Your task to perform on an android device: Go to calendar. Show me events next week Image 0: 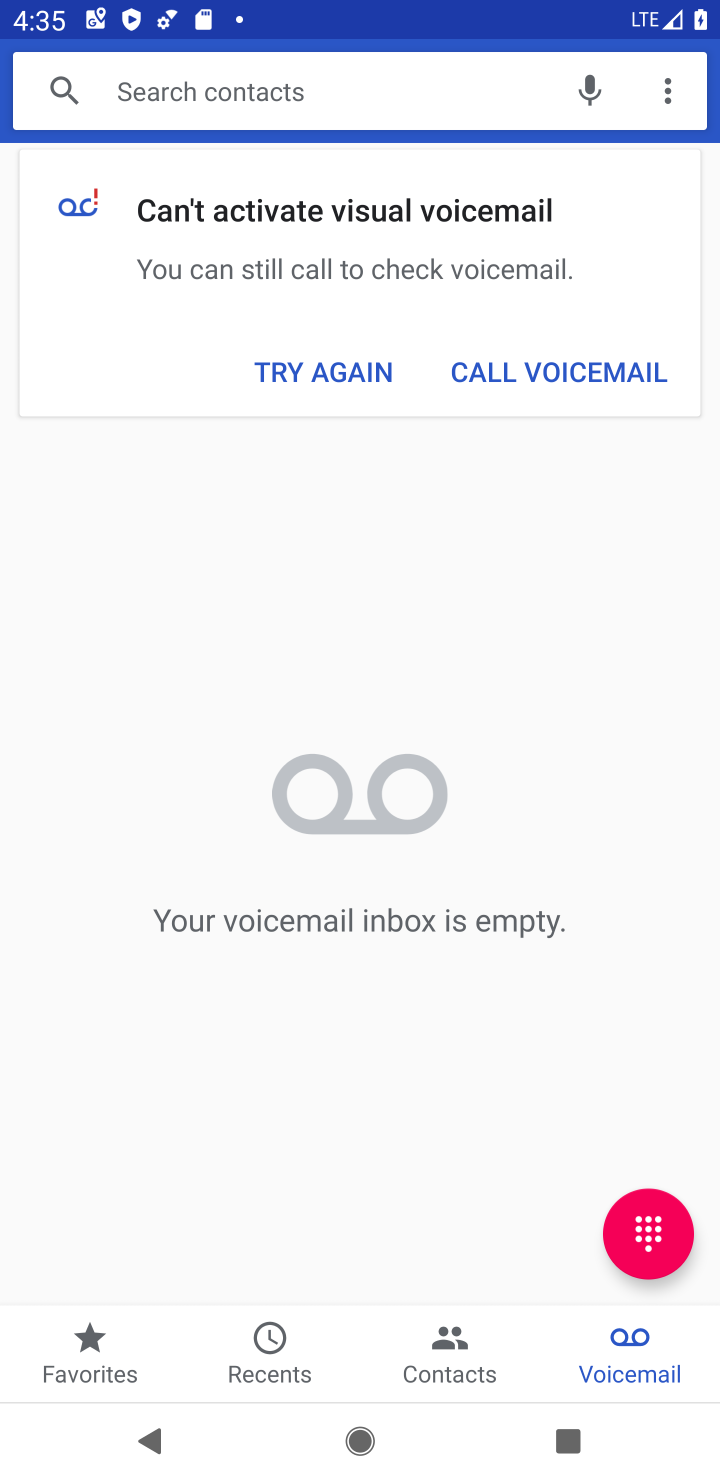
Step 0: press home button
Your task to perform on an android device: Go to calendar. Show me events next week Image 1: 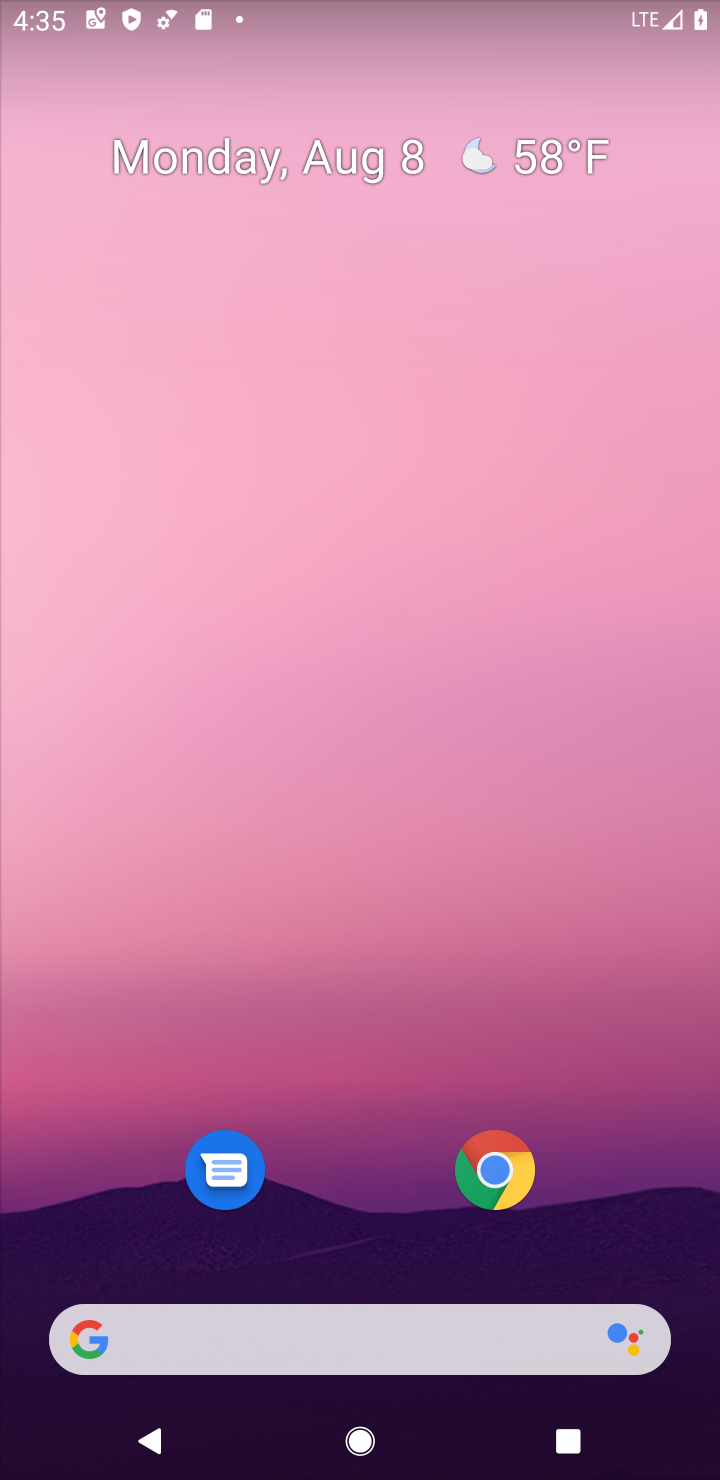
Step 1: drag from (362, 789) to (362, 449)
Your task to perform on an android device: Go to calendar. Show me events next week Image 2: 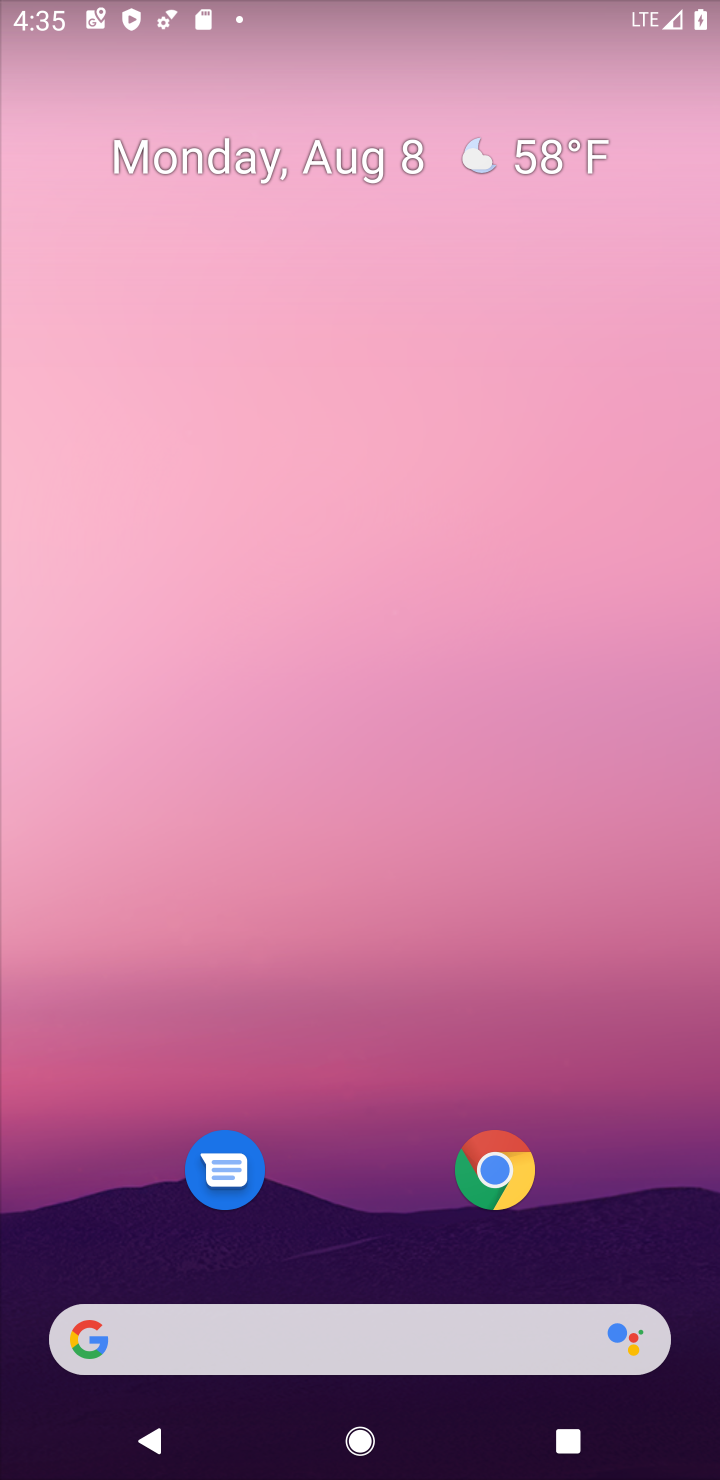
Step 2: drag from (344, 1140) to (353, 337)
Your task to perform on an android device: Go to calendar. Show me events next week Image 3: 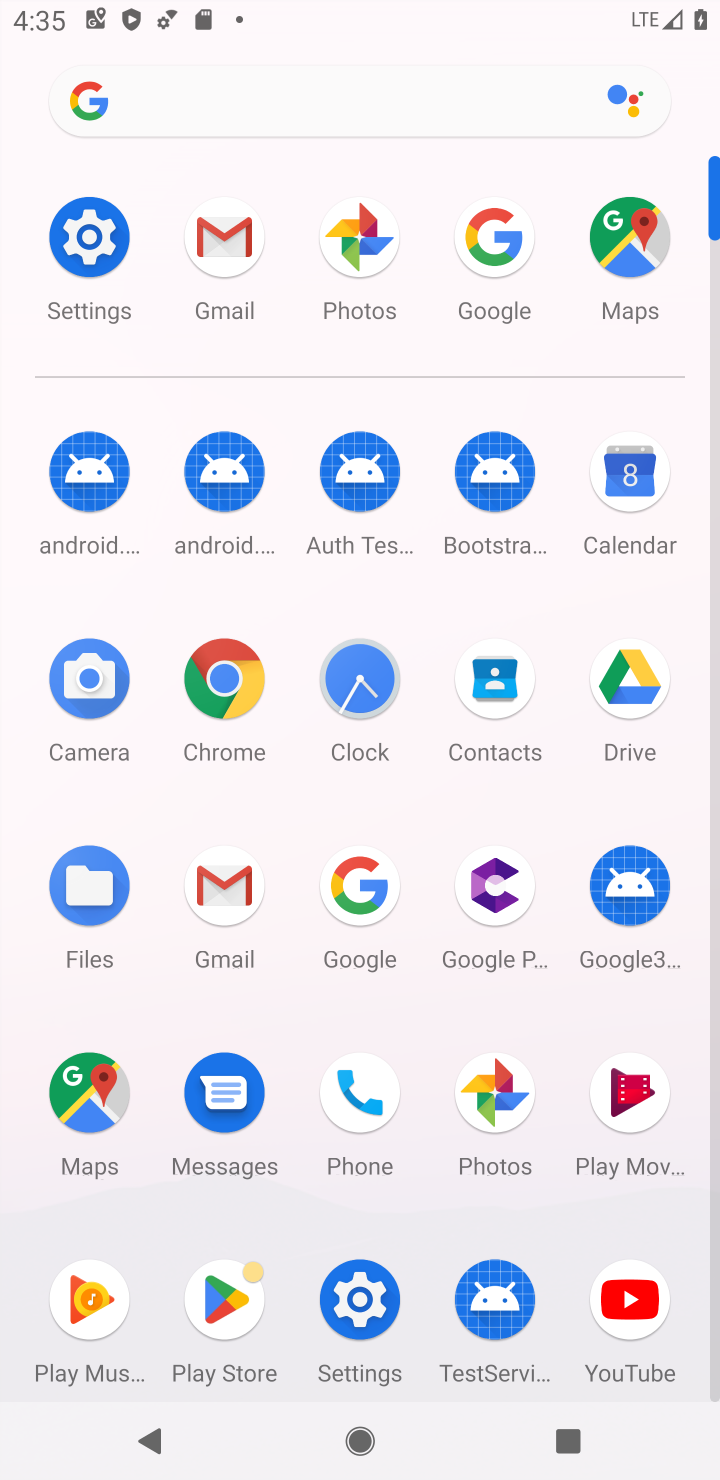
Step 3: click (592, 508)
Your task to perform on an android device: Go to calendar. Show me events next week Image 4: 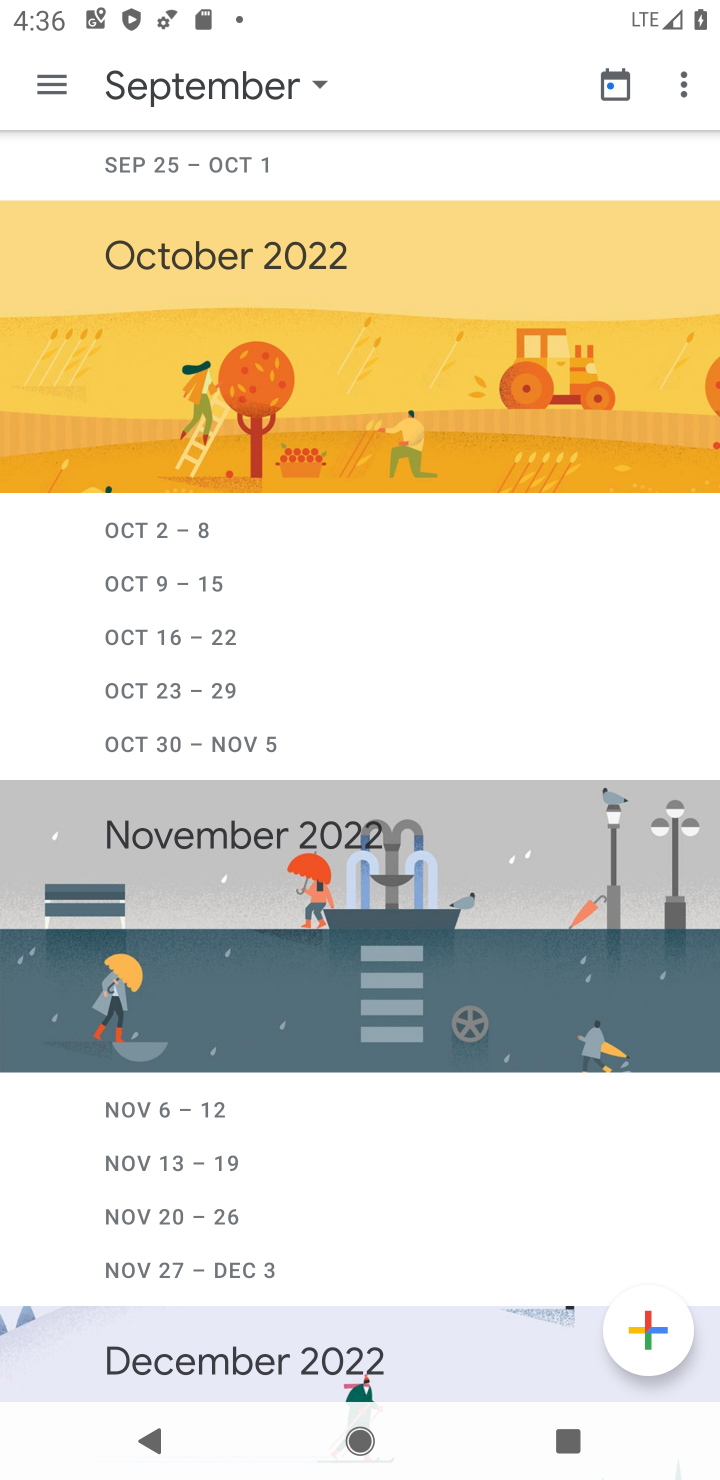
Step 4: task complete